Your task to perform on an android device: Search for the best selling TV on Best Buy. Image 0: 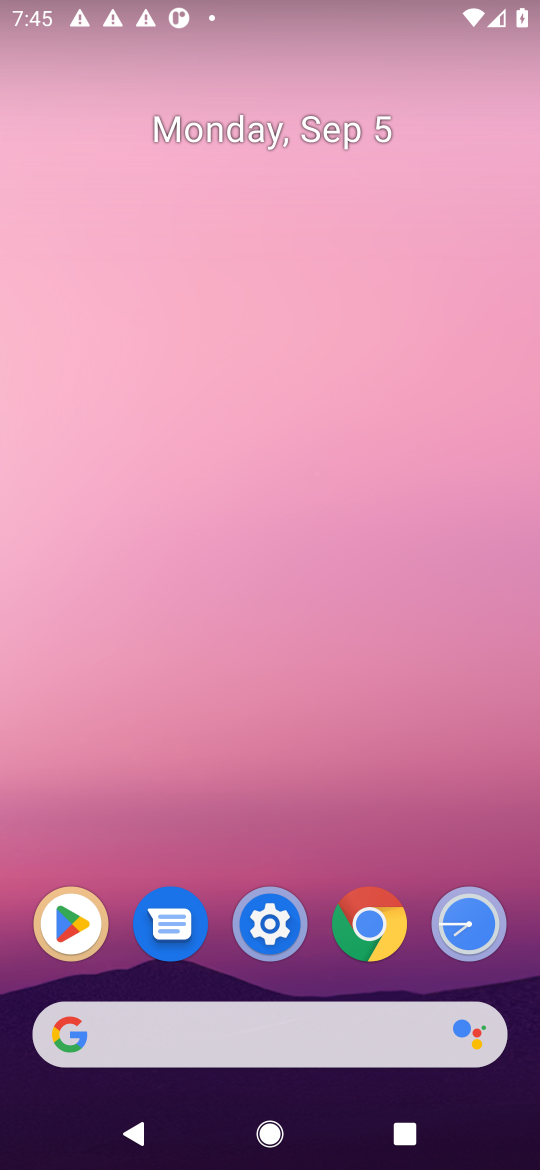
Step 0: press home button
Your task to perform on an android device: Search for the best selling TV on Best Buy. Image 1: 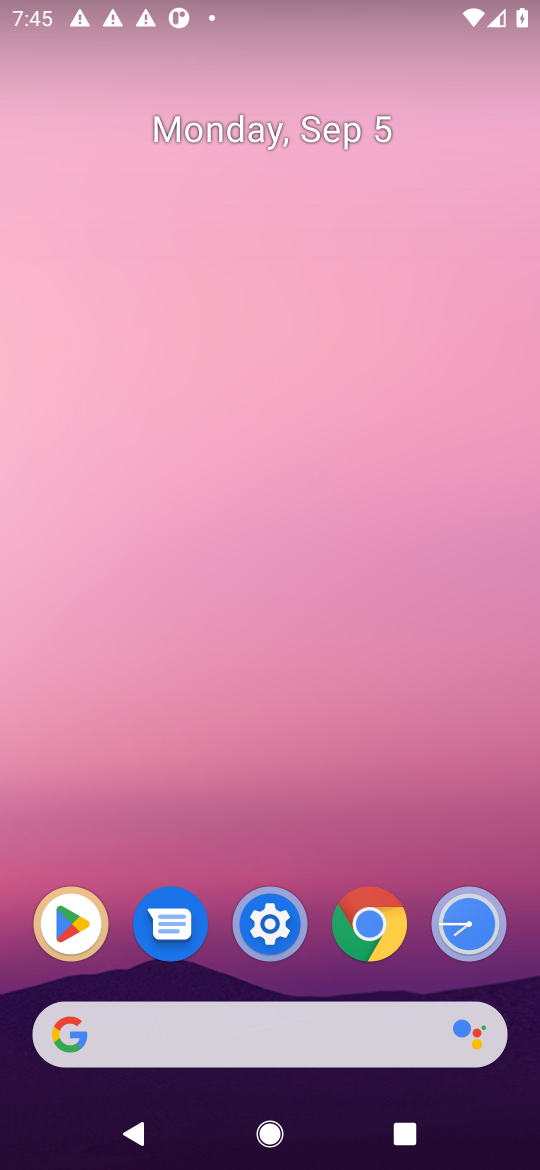
Step 1: click (364, 1050)
Your task to perform on an android device: Search for the best selling TV on Best Buy. Image 2: 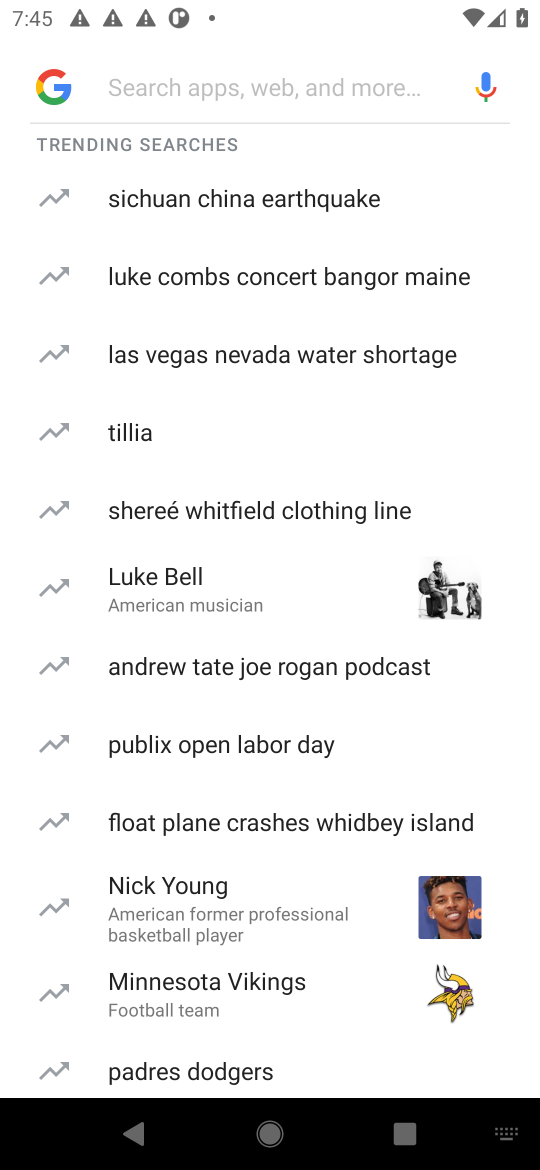
Step 2: press enter
Your task to perform on an android device: Search for the best selling TV on Best Buy. Image 3: 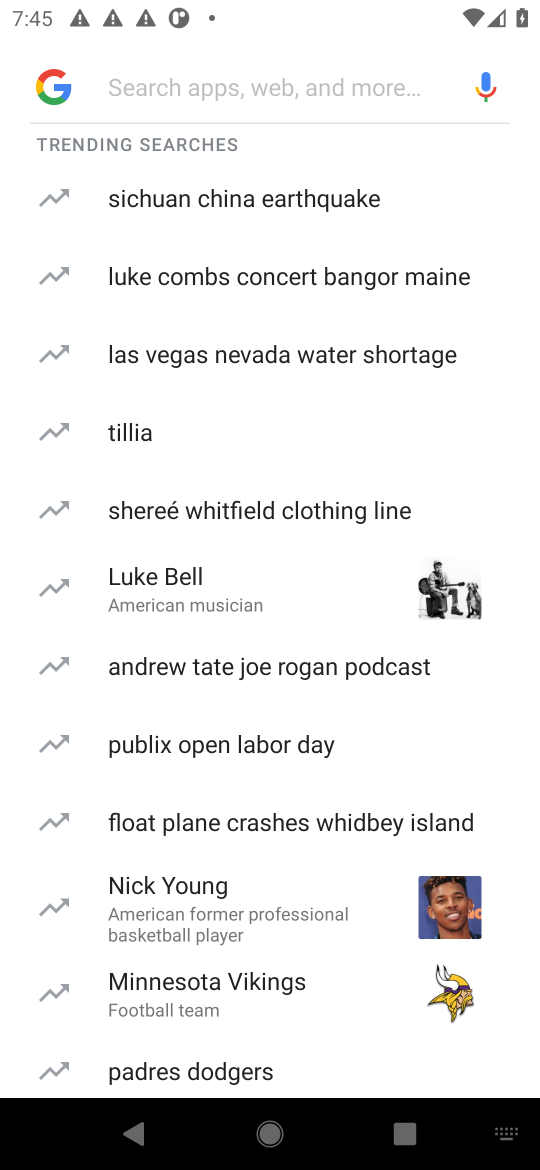
Step 3: type "best buy "
Your task to perform on an android device: Search for the best selling TV on Best Buy. Image 4: 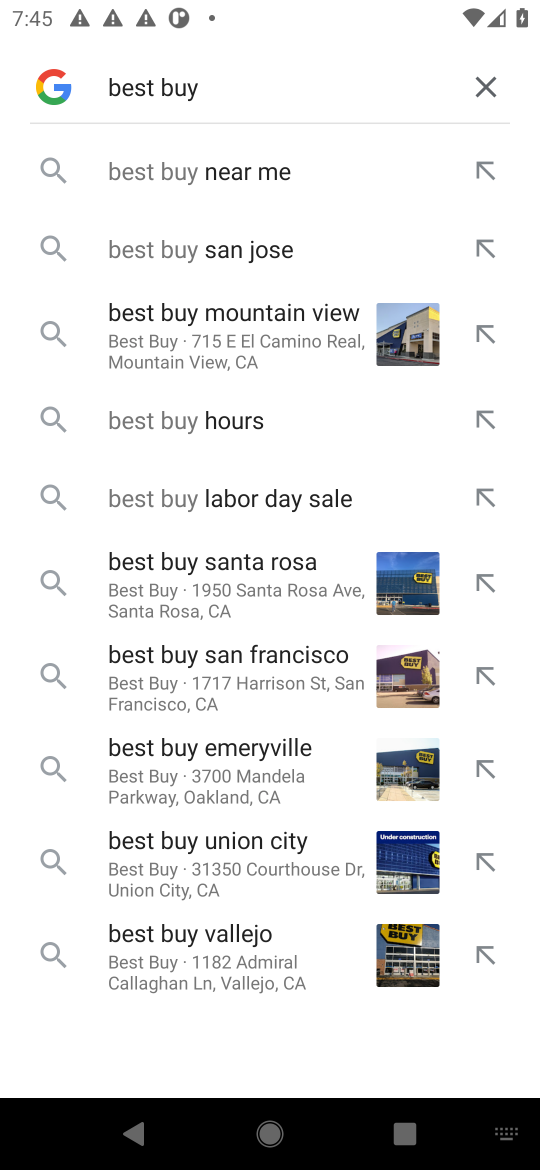
Step 4: press enter
Your task to perform on an android device: Search for the best selling TV on Best Buy. Image 5: 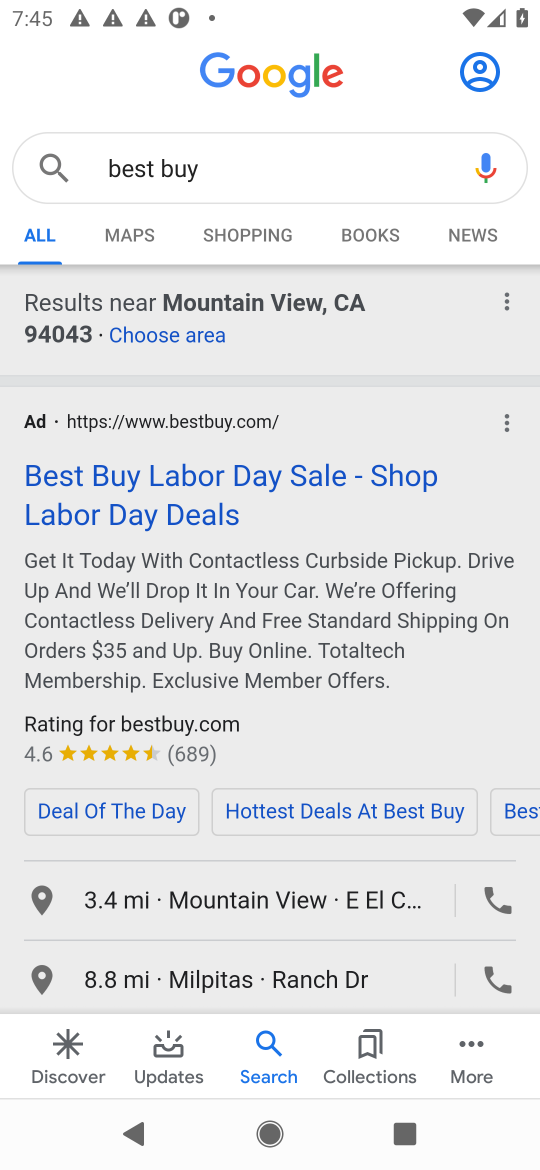
Step 5: click (170, 490)
Your task to perform on an android device: Search for the best selling TV on Best Buy. Image 6: 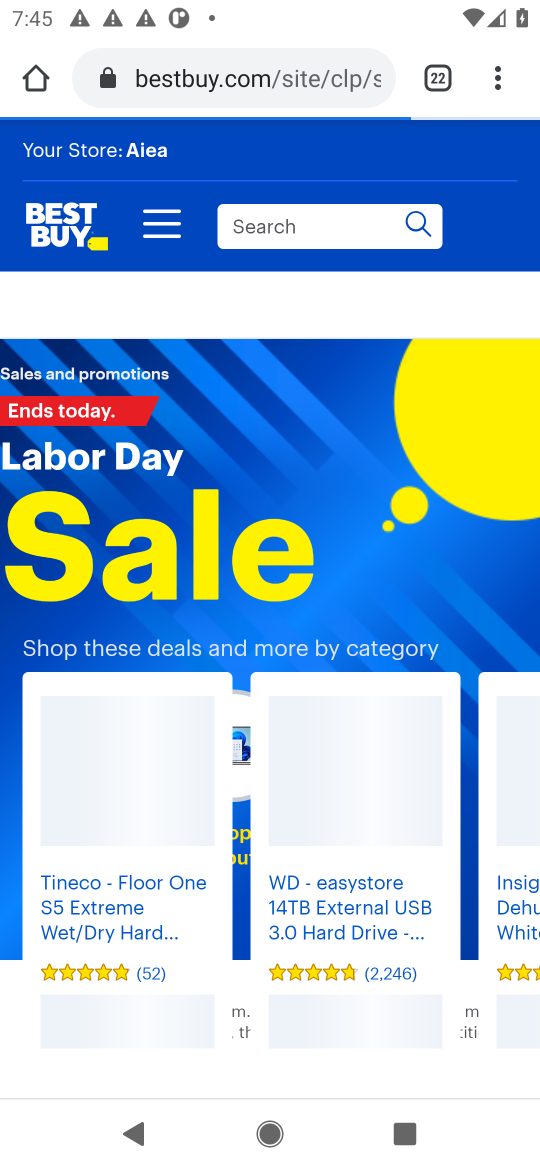
Step 6: click (282, 212)
Your task to perform on an android device: Search for the best selling TV on Best Buy. Image 7: 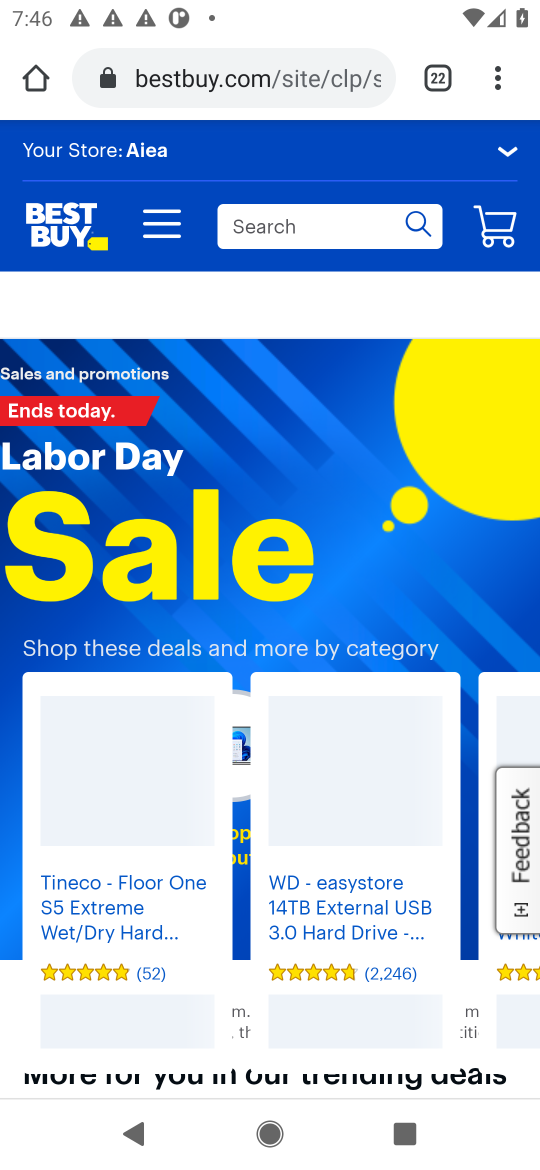
Step 7: type "best selling tv"
Your task to perform on an android device: Search for the best selling TV on Best Buy. Image 8: 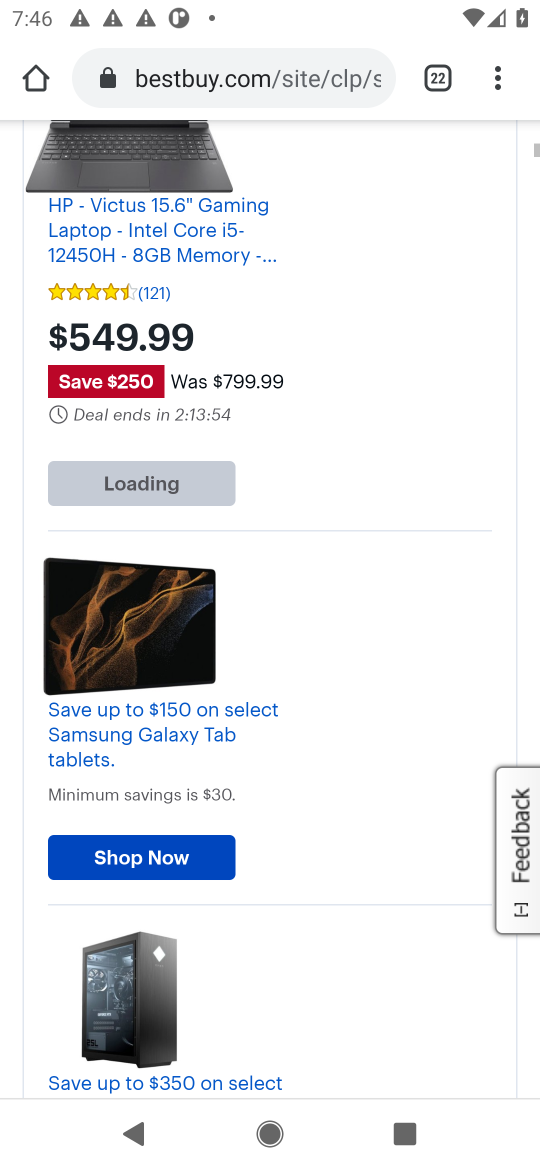
Step 8: press enter
Your task to perform on an android device: Search for the best selling TV on Best Buy. Image 9: 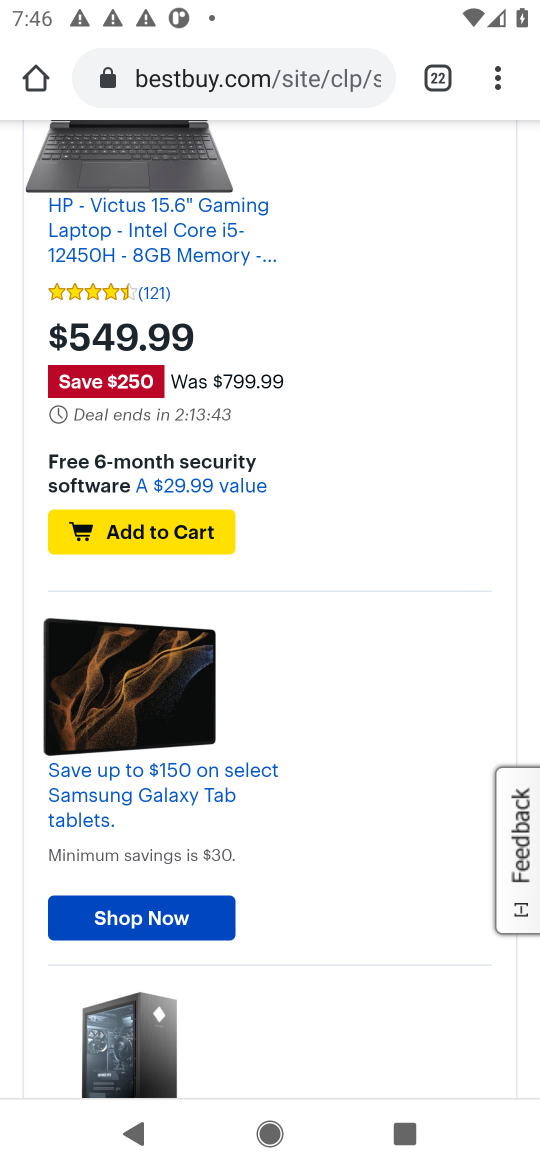
Step 9: drag from (443, 451) to (396, 931)
Your task to perform on an android device: Search for the best selling TV on Best Buy. Image 10: 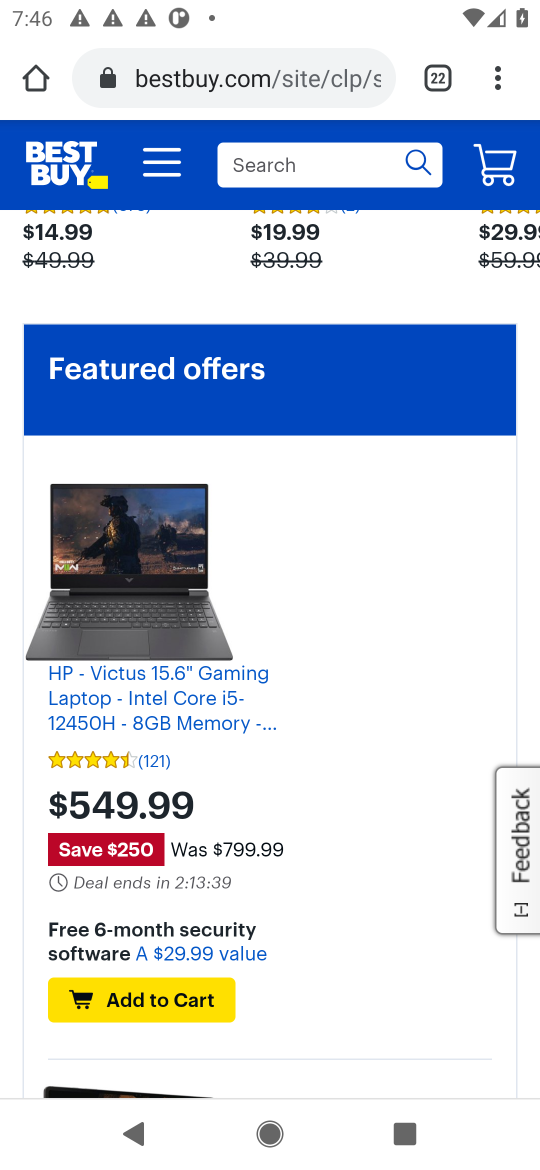
Step 10: drag from (386, 493) to (376, 942)
Your task to perform on an android device: Search for the best selling TV on Best Buy. Image 11: 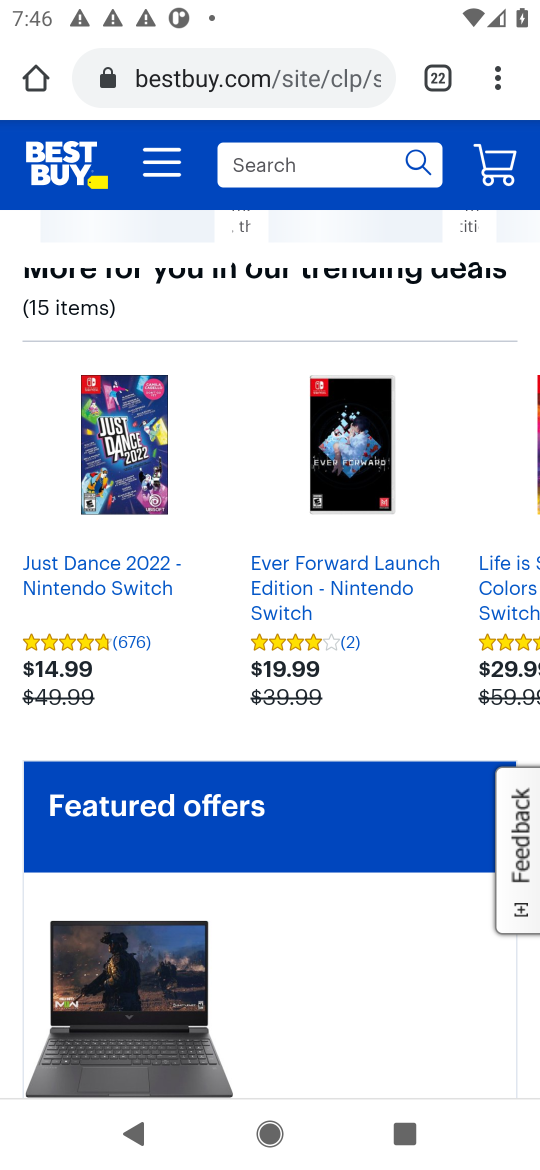
Step 11: drag from (422, 474) to (369, 858)
Your task to perform on an android device: Search for the best selling TV on Best Buy. Image 12: 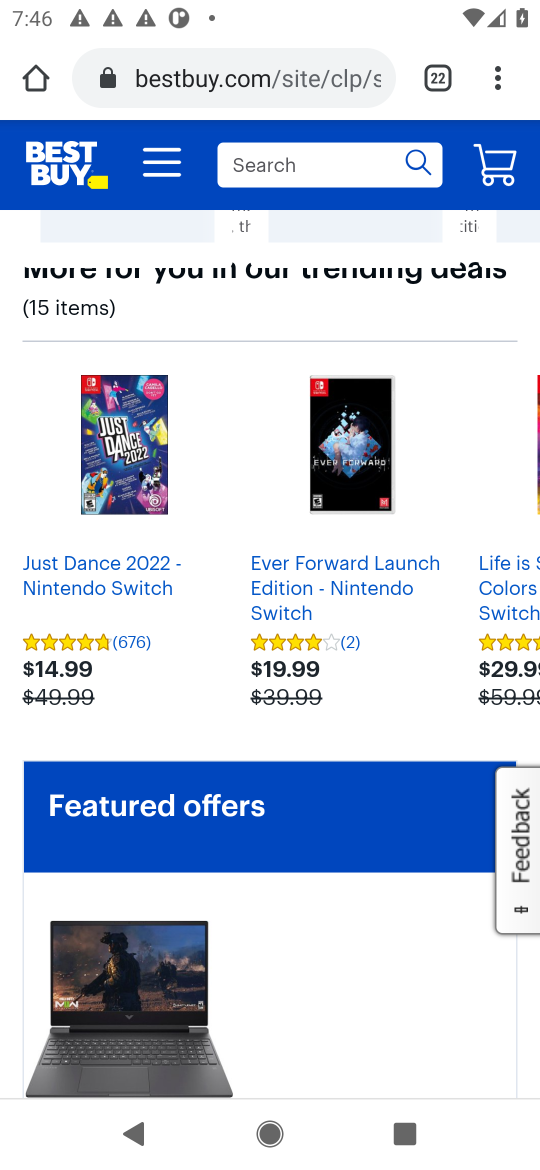
Step 12: drag from (433, 360) to (369, 859)
Your task to perform on an android device: Search for the best selling TV on Best Buy. Image 13: 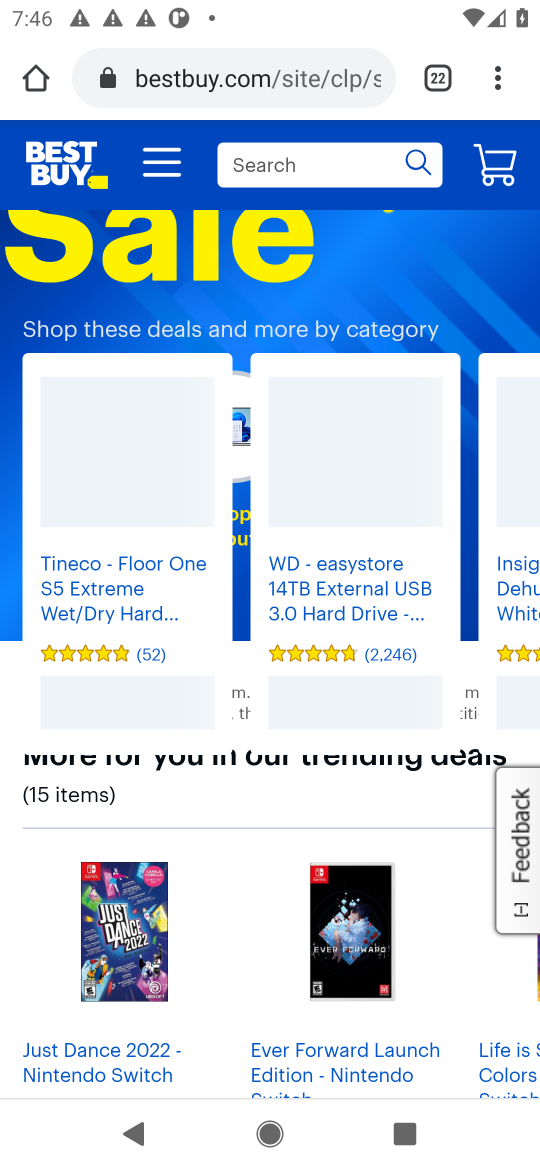
Step 13: click (309, 156)
Your task to perform on an android device: Search for the best selling TV on Best Buy. Image 14: 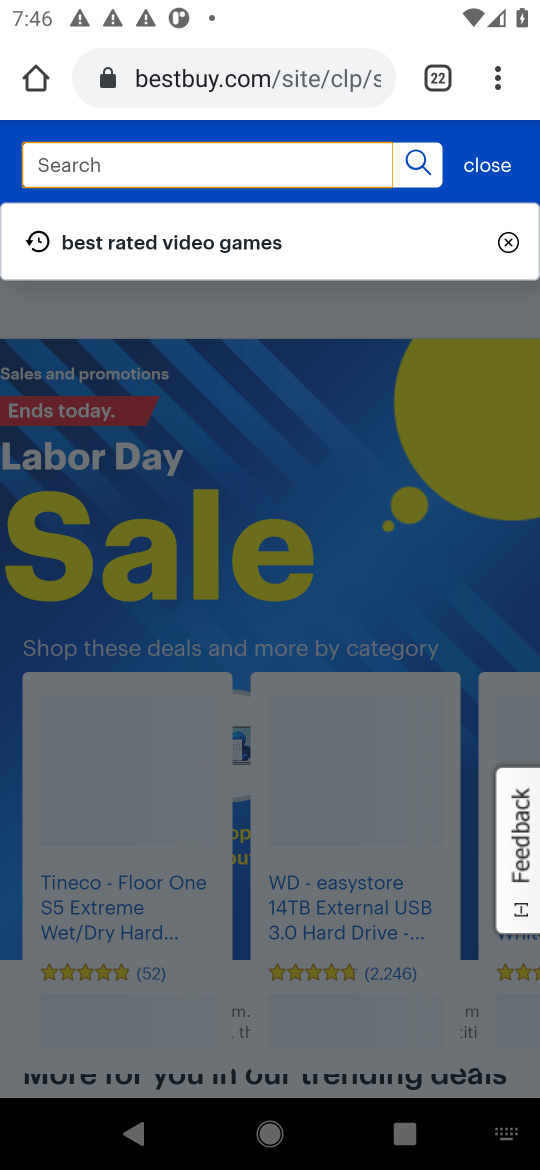
Step 14: type "best selling tv"
Your task to perform on an android device: Search for the best selling TV on Best Buy. Image 15: 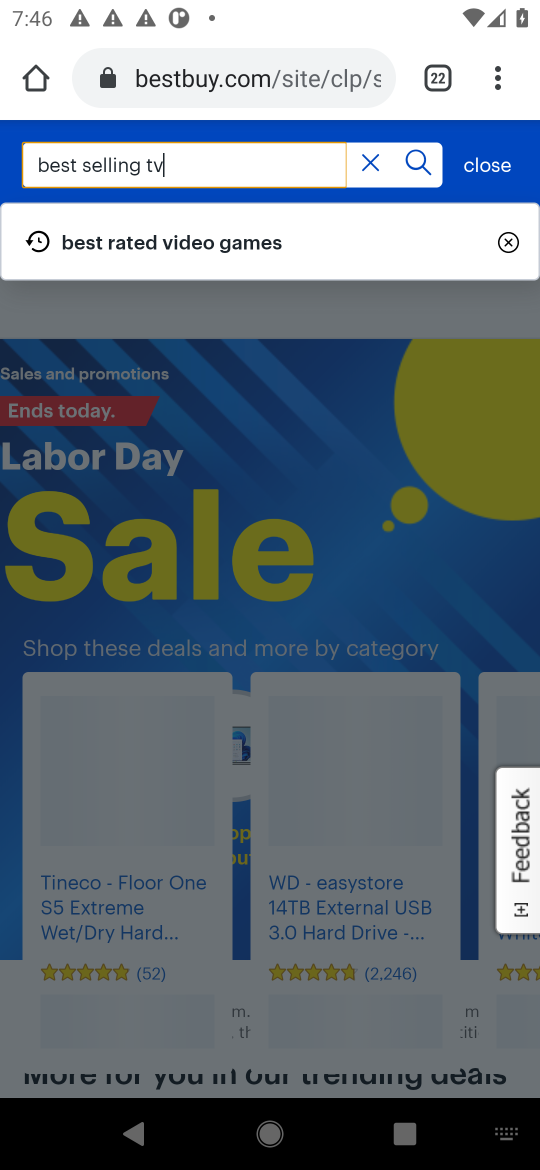
Step 15: press enter
Your task to perform on an android device: Search for the best selling TV on Best Buy. Image 16: 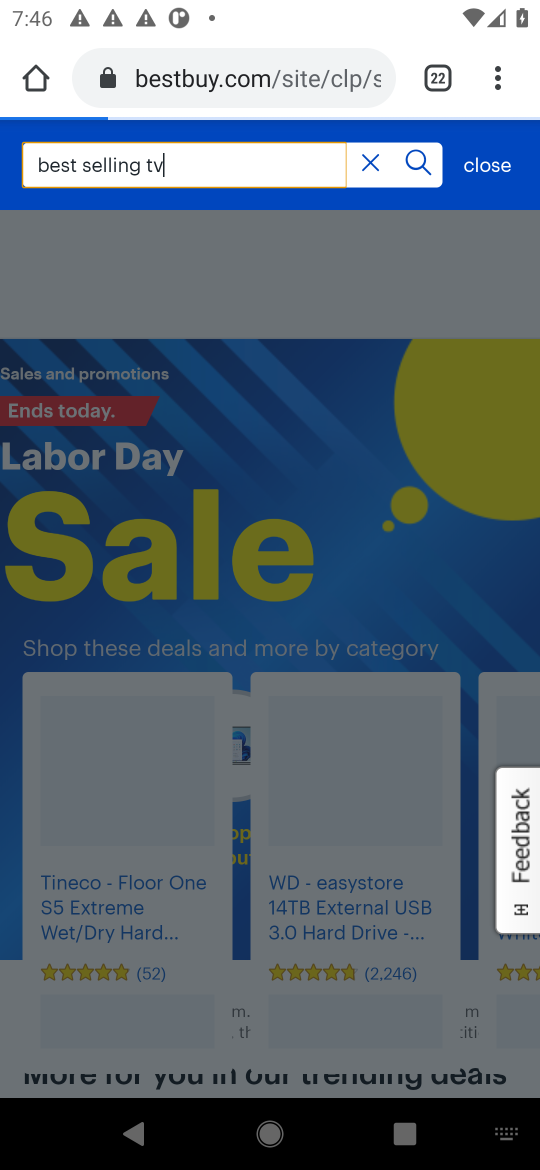
Step 16: click (417, 159)
Your task to perform on an android device: Search for the best selling TV on Best Buy. Image 17: 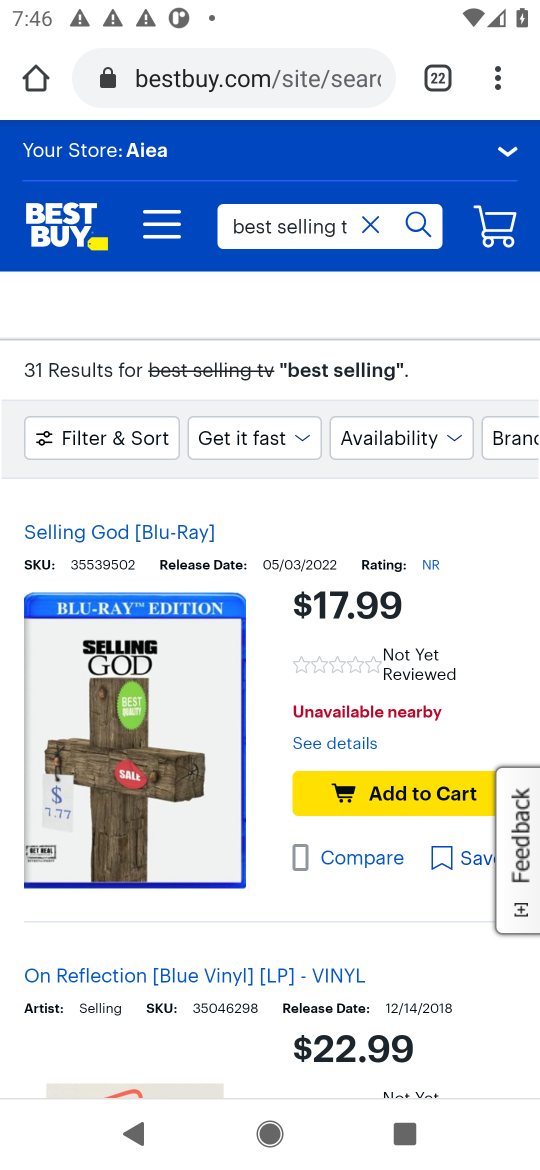
Step 17: task complete